Your task to perform on an android device: Search for Italian restaurants on Maps Image 0: 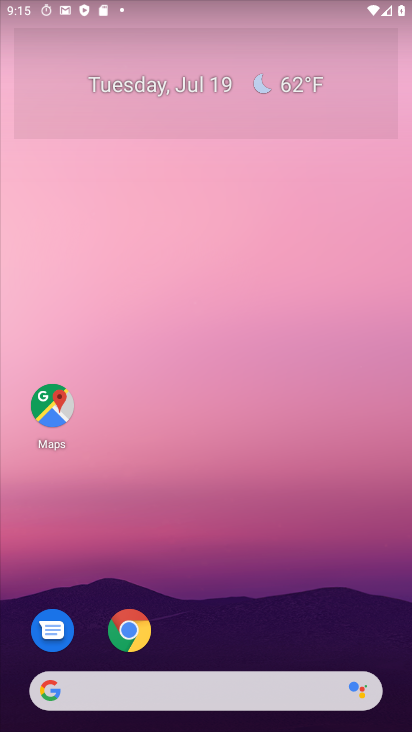
Step 0: click (33, 402)
Your task to perform on an android device: Search for Italian restaurants on Maps Image 1: 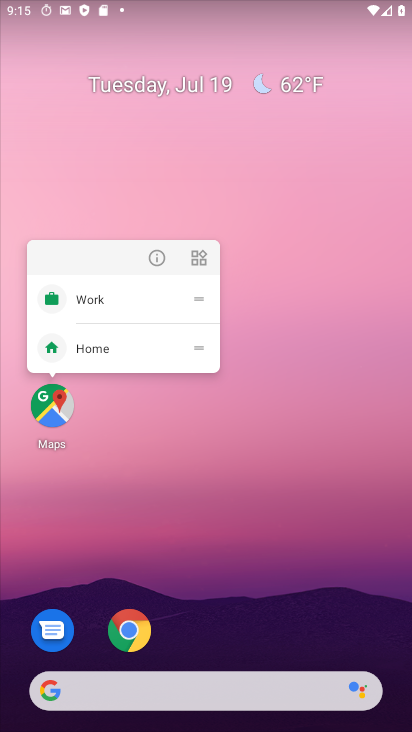
Step 1: click (44, 406)
Your task to perform on an android device: Search for Italian restaurants on Maps Image 2: 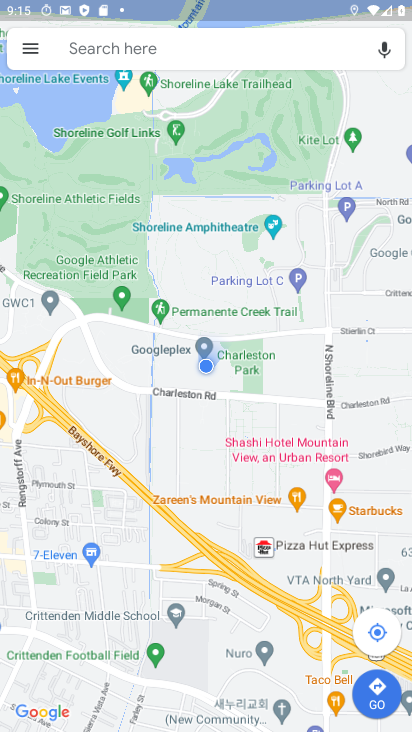
Step 2: click (108, 45)
Your task to perform on an android device: Search for Italian restaurants on Maps Image 3: 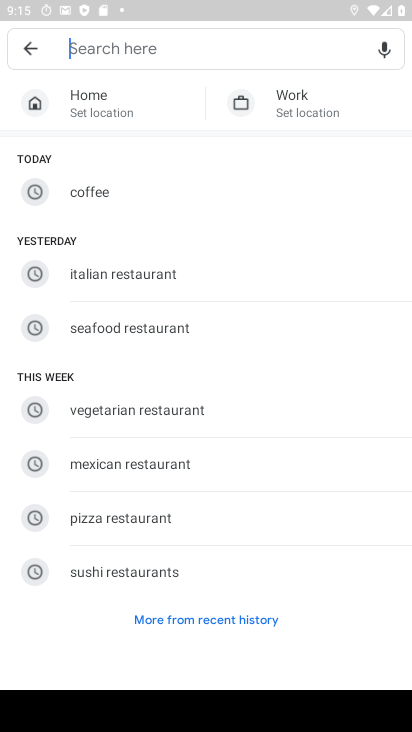
Step 3: click (115, 267)
Your task to perform on an android device: Search for Italian restaurants on Maps Image 4: 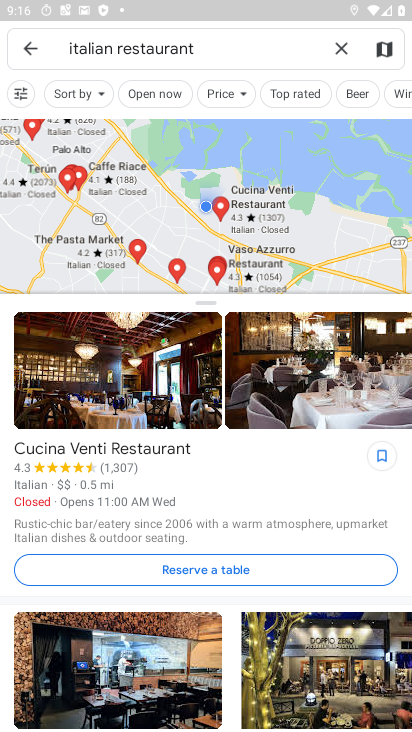
Step 4: task complete